Your task to perform on an android device: change notification settings in the gmail app Image 0: 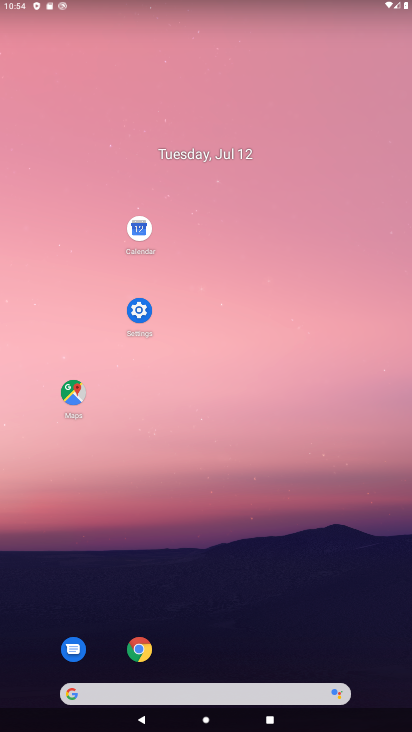
Step 0: drag from (234, 610) to (329, 153)
Your task to perform on an android device: change notification settings in the gmail app Image 1: 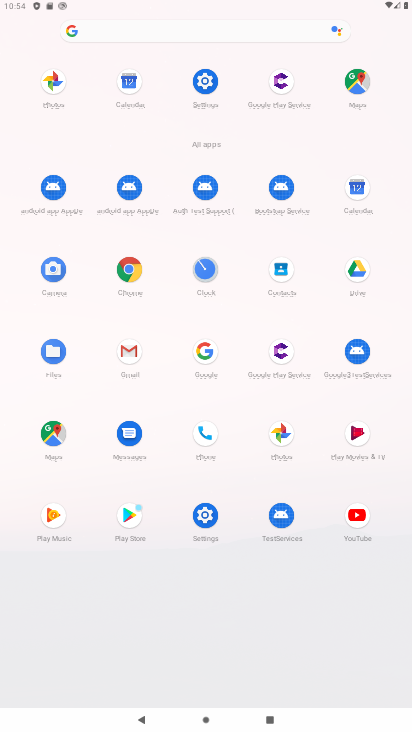
Step 1: drag from (131, 347) to (69, 147)
Your task to perform on an android device: change notification settings in the gmail app Image 2: 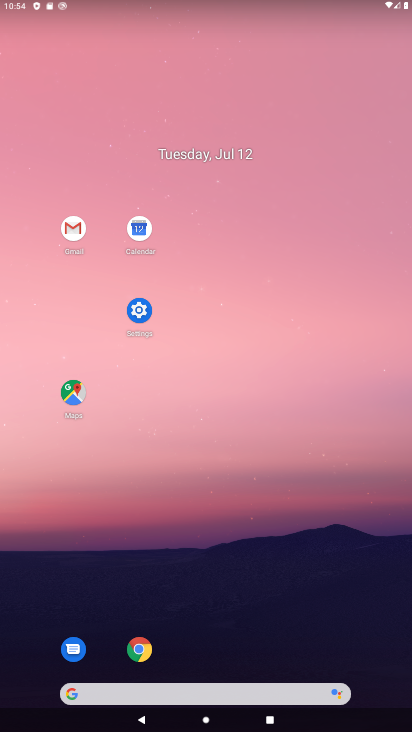
Step 2: click (79, 218)
Your task to perform on an android device: change notification settings in the gmail app Image 3: 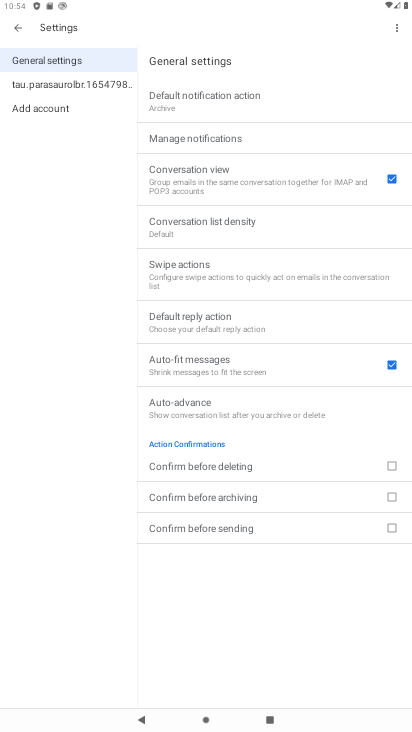
Step 3: click (16, 27)
Your task to perform on an android device: change notification settings in the gmail app Image 4: 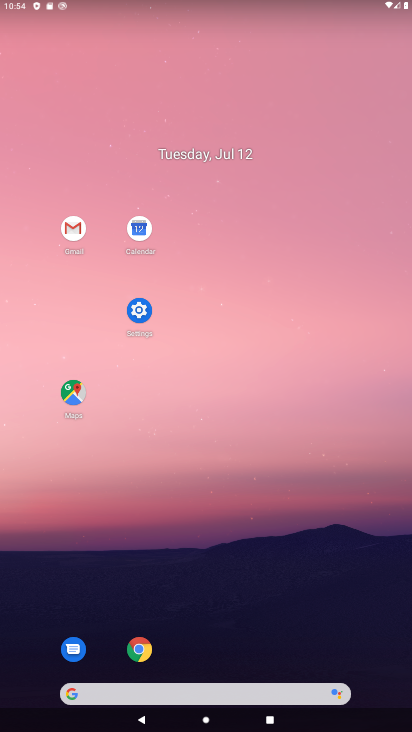
Step 4: click (88, 234)
Your task to perform on an android device: change notification settings in the gmail app Image 5: 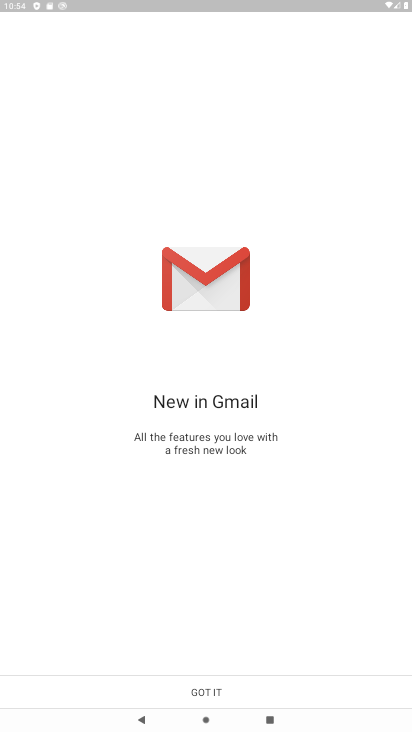
Step 5: click (257, 701)
Your task to perform on an android device: change notification settings in the gmail app Image 6: 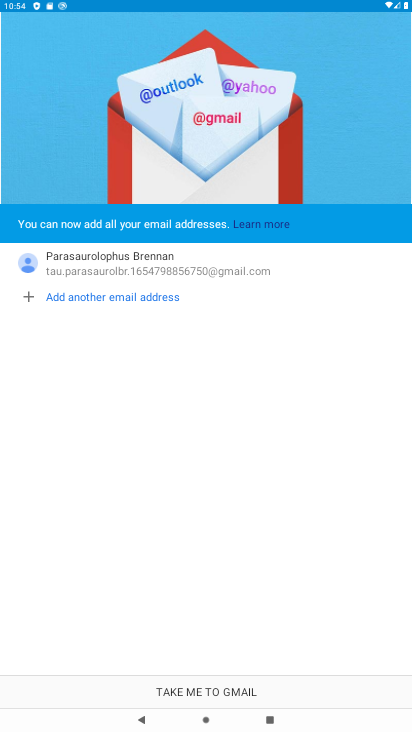
Step 6: click (223, 683)
Your task to perform on an android device: change notification settings in the gmail app Image 7: 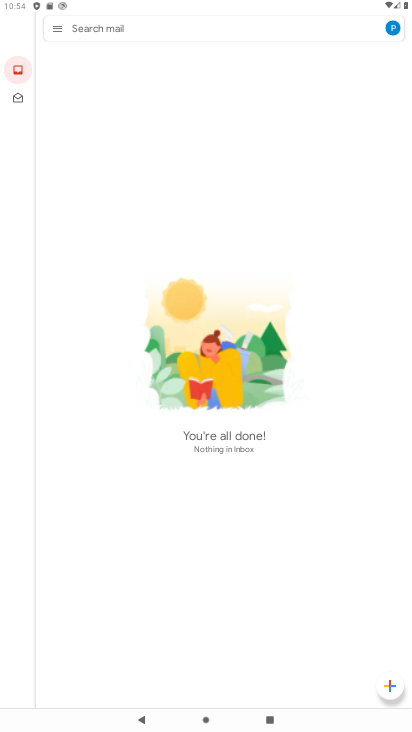
Step 7: click (58, 15)
Your task to perform on an android device: change notification settings in the gmail app Image 8: 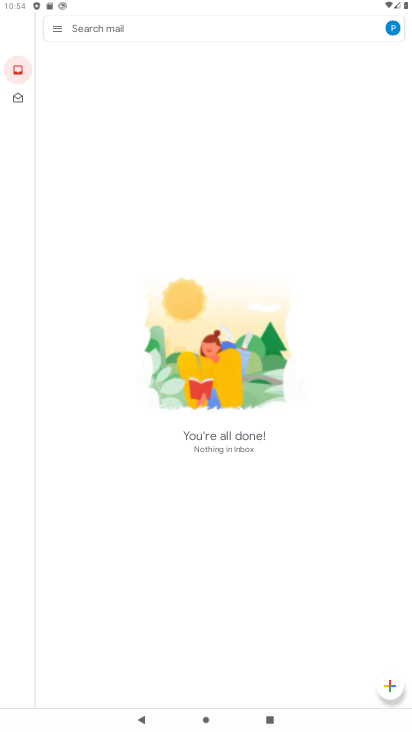
Step 8: click (58, 29)
Your task to perform on an android device: change notification settings in the gmail app Image 9: 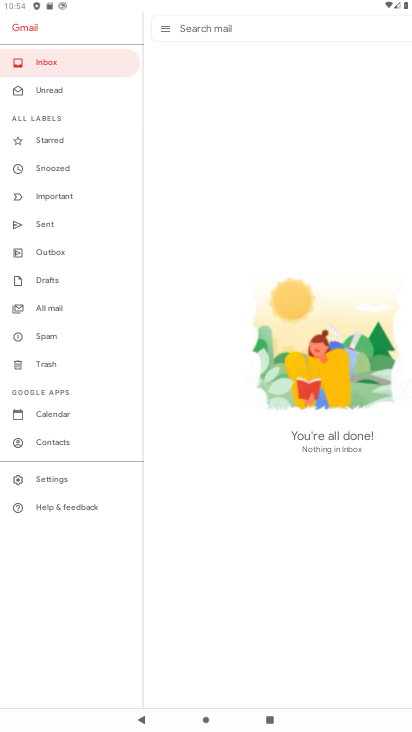
Step 9: click (48, 480)
Your task to perform on an android device: change notification settings in the gmail app Image 10: 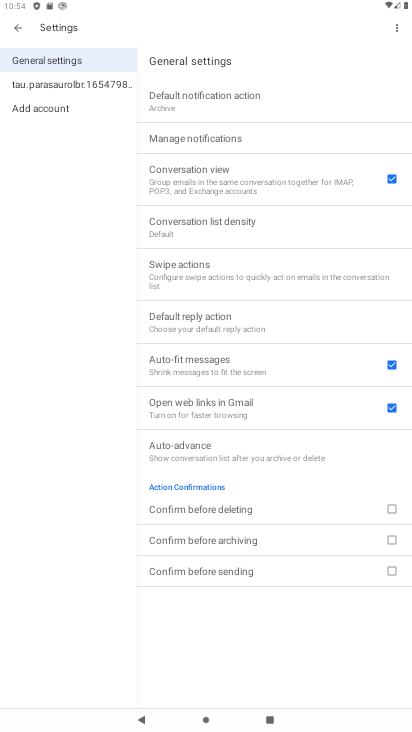
Step 10: click (173, 139)
Your task to perform on an android device: change notification settings in the gmail app Image 11: 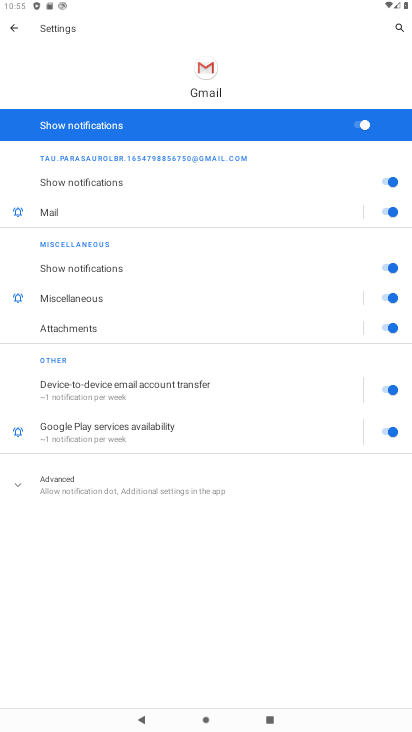
Step 11: click (365, 130)
Your task to perform on an android device: change notification settings in the gmail app Image 12: 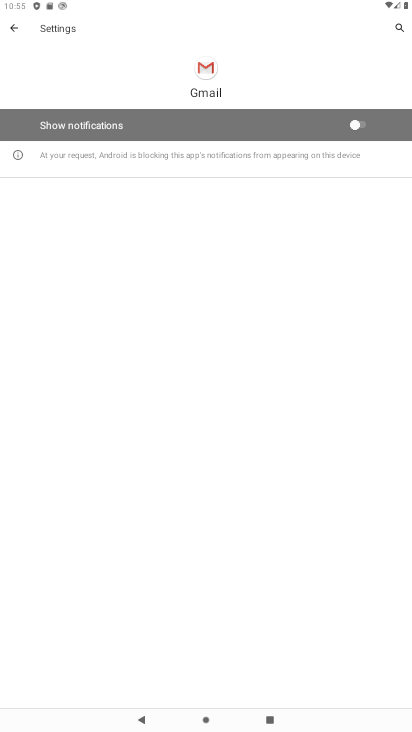
Step 12: task complete